Your task to perform on an android device: turn on javascript in the chrome app Image 0: 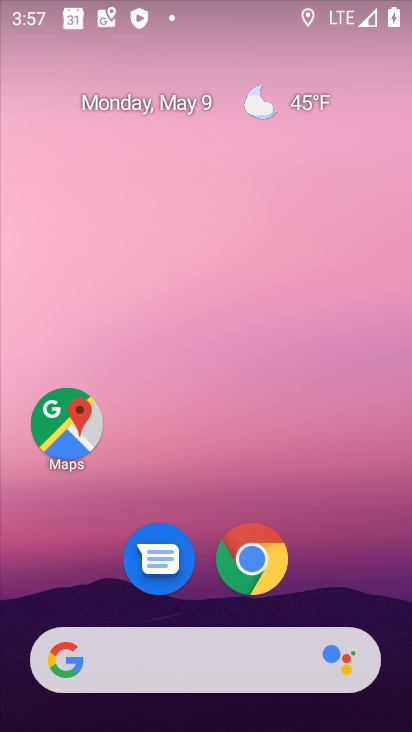
Step 0: click (254, 560)
Your task to perform on an android device: turn on javascript in the chrome app Image 1: 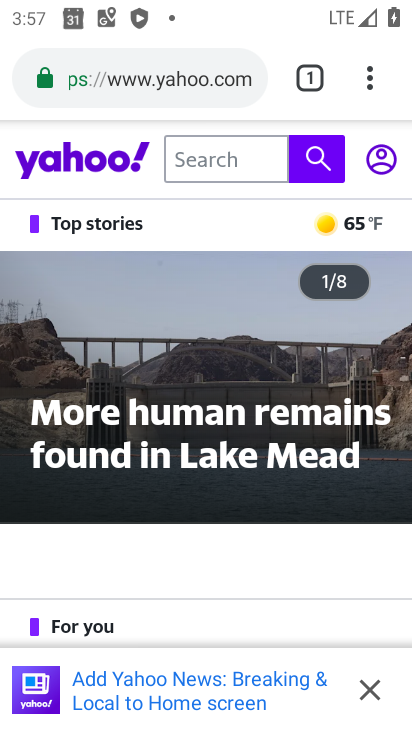
Step 1: click (371, 79)
Your task to perform on an android device: turn on javascript in the chrome app Image 2: 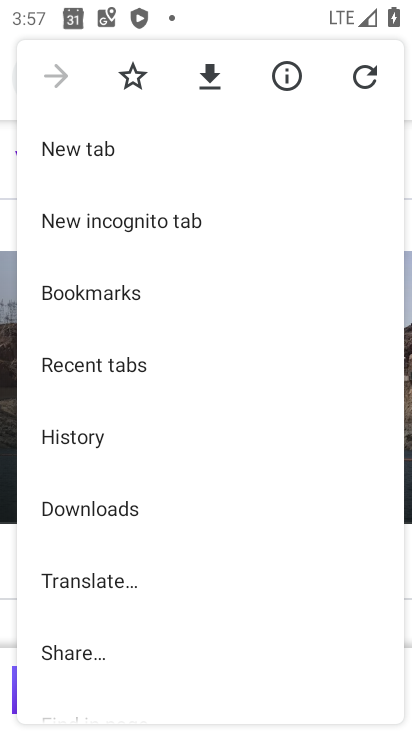
Step 2: drag from (154, 577) to (177, 325)
Your task to perform on an android device: turn on javascript in the chrome app Image 3: 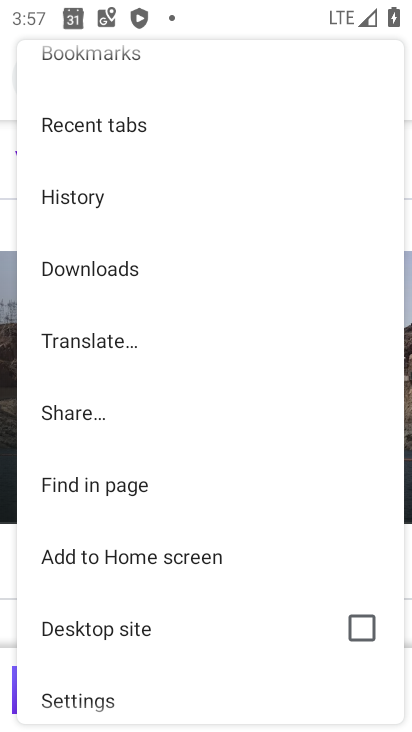
Step 3: drag from (78, 658) to (140, 447)
Your task to perform on an android device: turn on javascript in the chrome app Image 4: 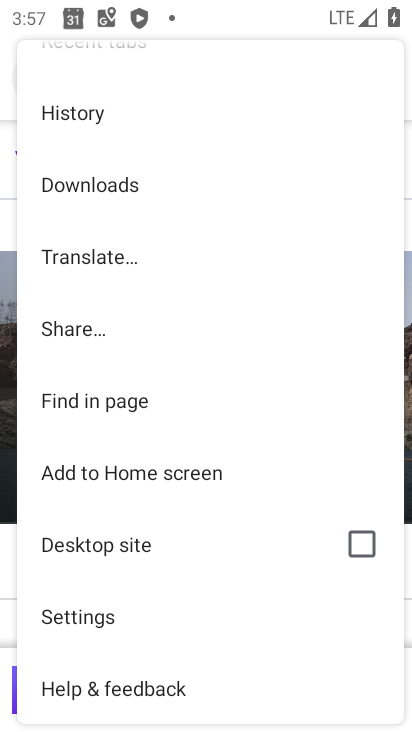
Step 4: click (93, 617)
Your task to perform on an android device: turn on javascript in the chrome app Image 5: 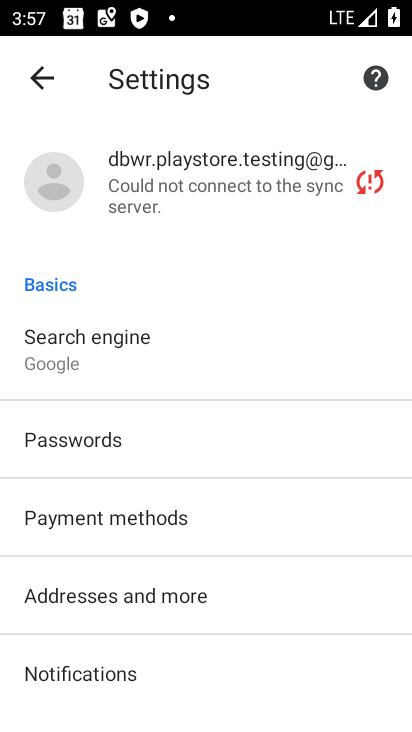
Step 5: drag from (190, 571) to (271, 366)
Your task to perform on an android device: turn on javascript in the chrome app Image 6: 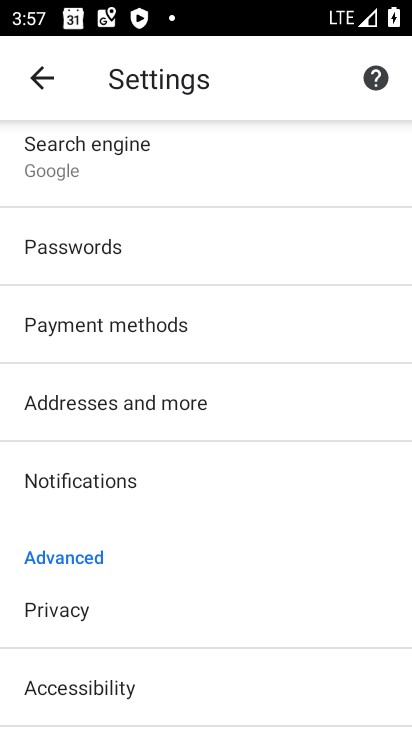
Step 6: drag from (187, 619) to (244, 421)
Your task to perform on an android device: turn on javascript in the chrome app Image 7: 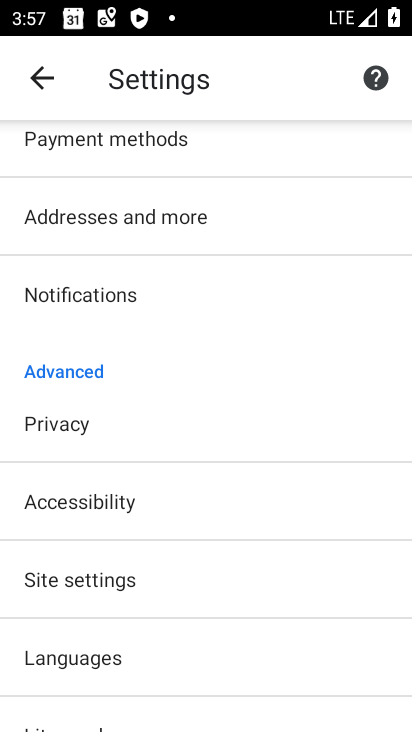
Step 7: click (117, 574)
Your task to perform on an android device: turn on javascript in the chrome app Image 8: 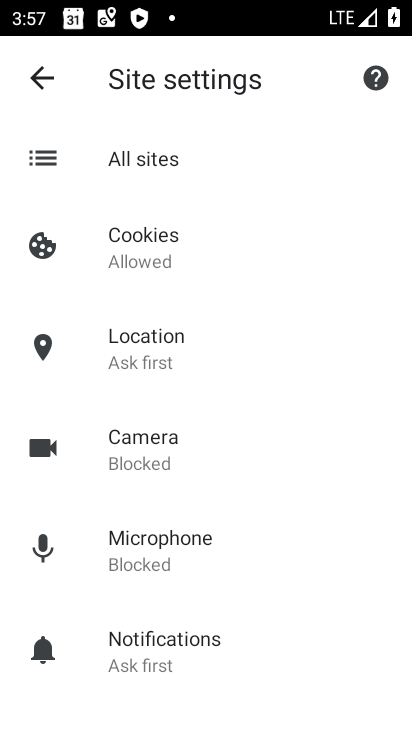
Step 8: drag from (225, 508) to (295, 380)
Your task to perform on an android device: turn on javascript in the chrome app Image 9: 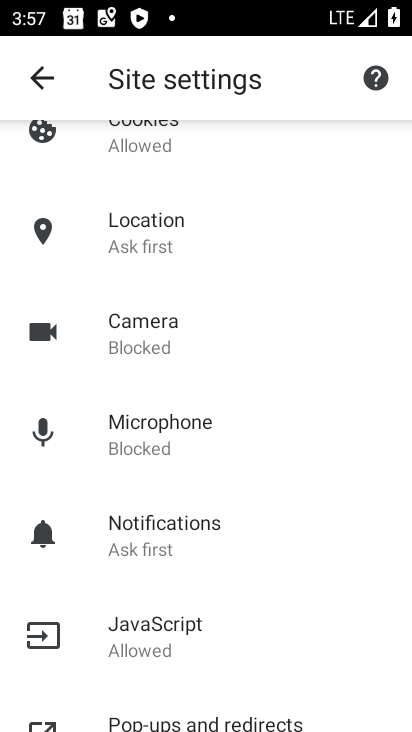
Step 9: click (178, 620)
Your task to perform on an android device: turn on javascript in the chrome app Image 10: 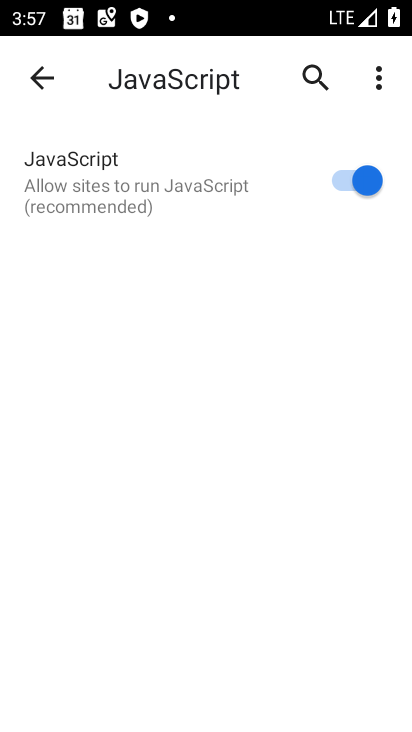
Step 10: task complete